Your task to perform on an android device: move an email to a new category in the gmail app Image 0: 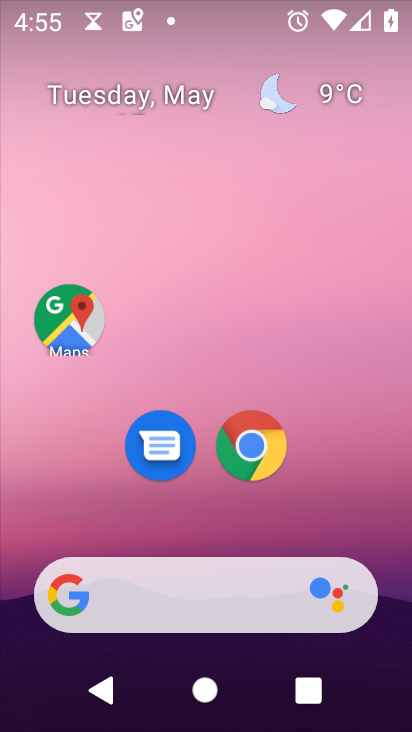
Step 0: drag from (215, 590) to (267, 23)
Your task to perform on an android device: move an email to a new category in the gmail app Image 1: 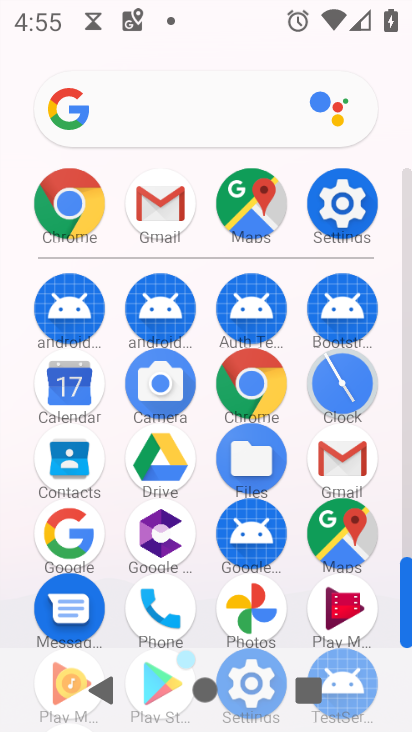
Step 1: click (355, 455)
Your task to perform on an android device: move an email to a new category in the gmail app Image 2: 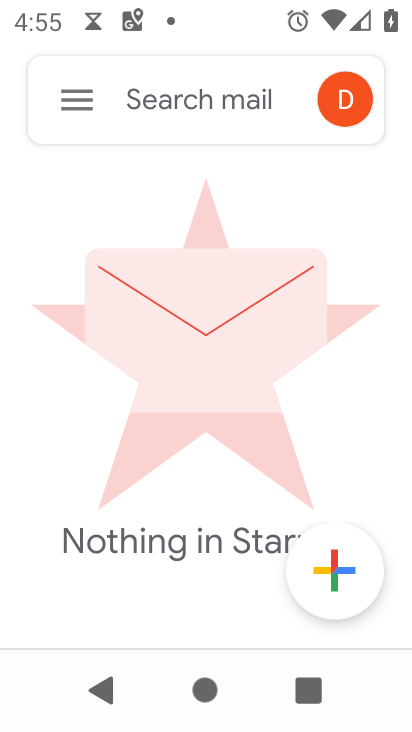
Step 2: click (93, 112)
Your task to perform on an android device: move an email to a new category in the gmail app Image 3: 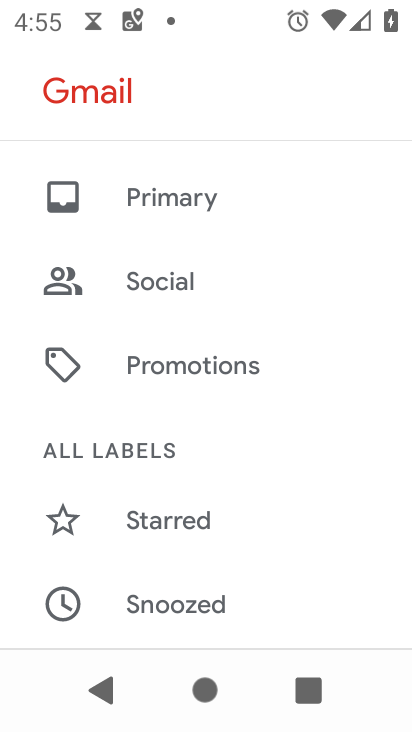
Step 3: drag from (226, 594) to (283, 55)
Your task to perform on an android device: move an email to a new category in the gmail app Image 4: 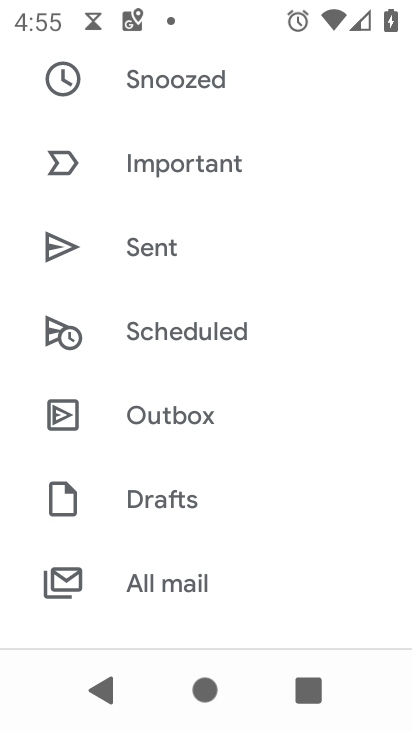
Step 4: drag from (229, 228) to (255, 509)
Your task to perform on an android device: move an email to a new category in the gmail app Image 5: 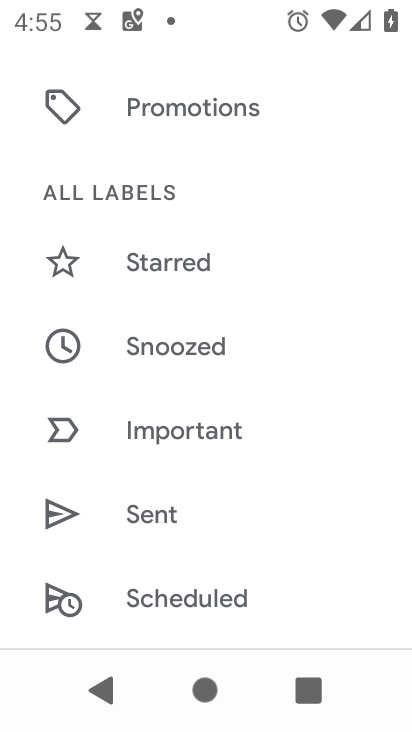
Step 5: click (200, 347)
Your task to perform on an android device: move an email to a new category in the gmail app Image 6: 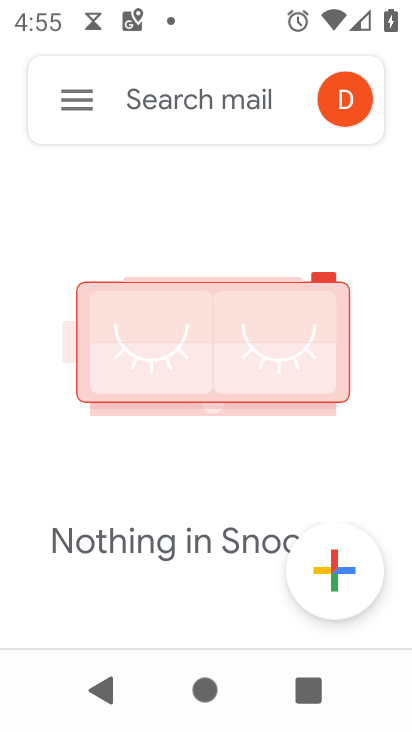
Step 6: task complete